Your task to perform on an android device: Empty the shopping cart on costco.com. Image 0: 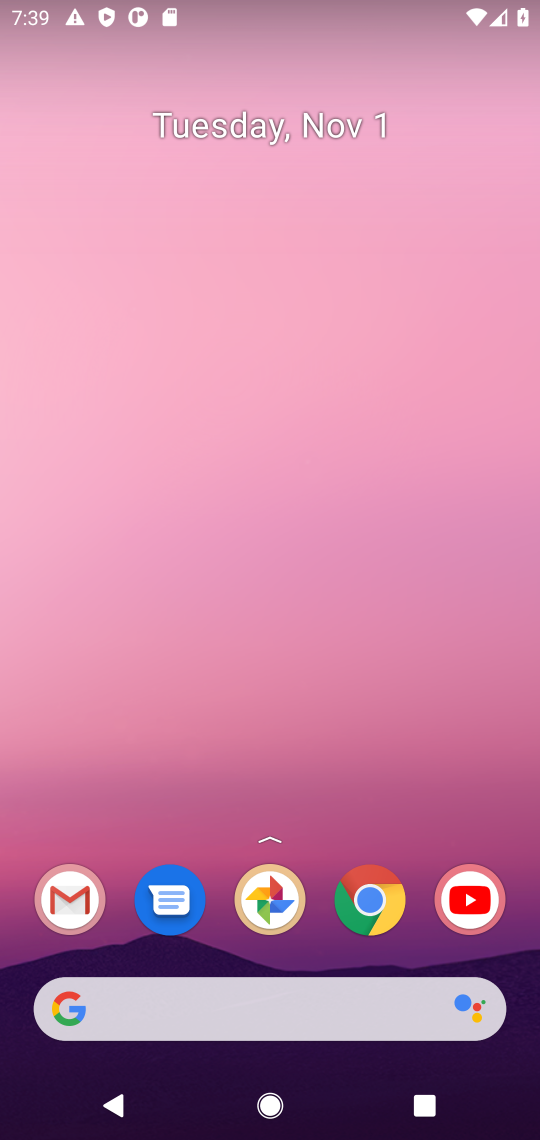
Step 0: drag from (312, 957) to (323, 85)
Your task to perform on an android device: Empty the shopping cart on costco.com. Image 1: 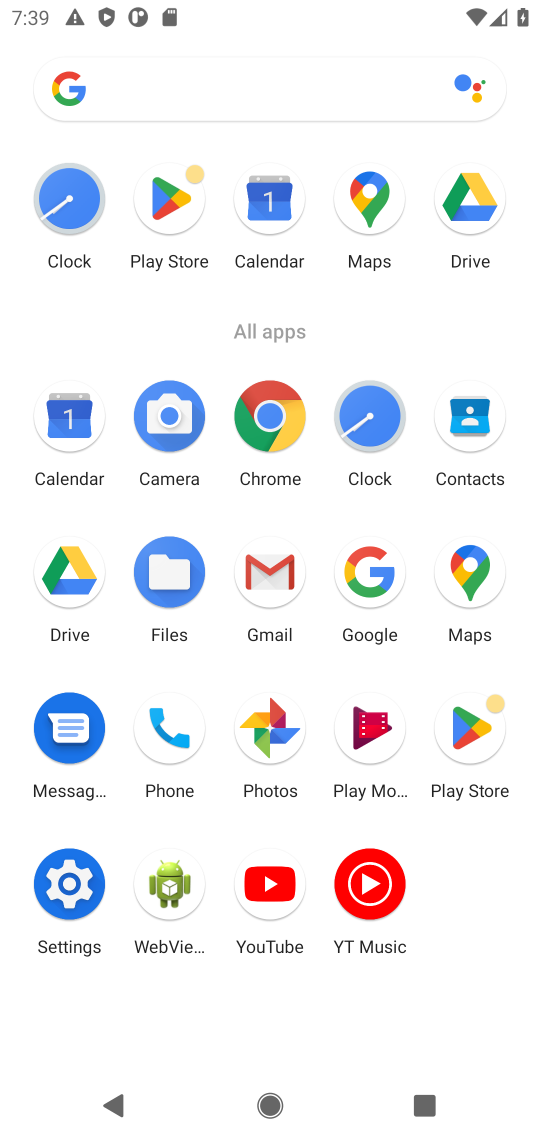
Step 1: click (277, 422)
Your task to perform on an android device: Empty the shopping cart on costco.com. Image 2: 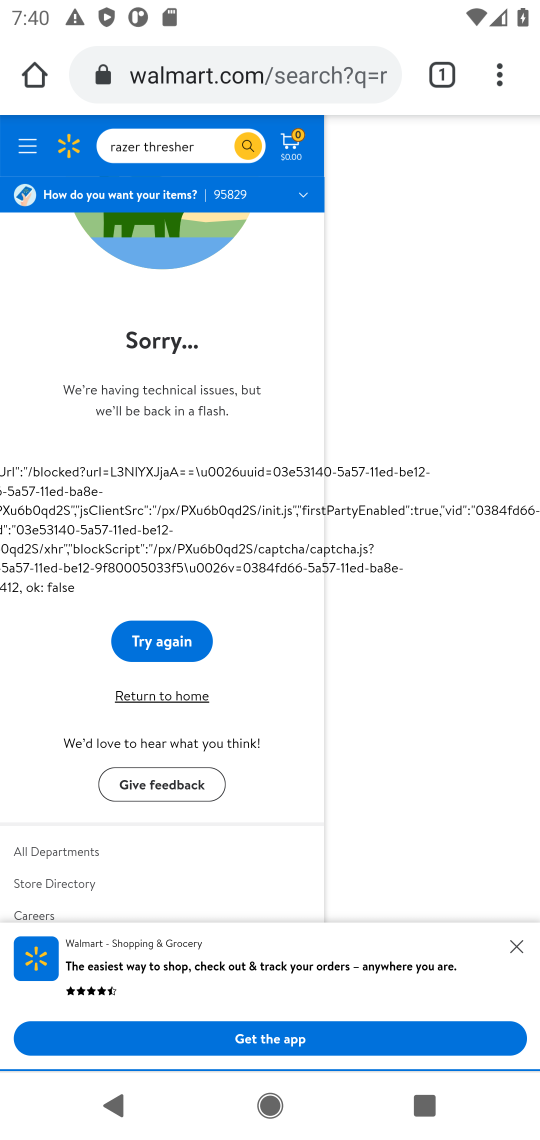
Step 2: click (258, 81)
Your task to perform on an android device: Empty the shopping cart on costco.com. Image 3: 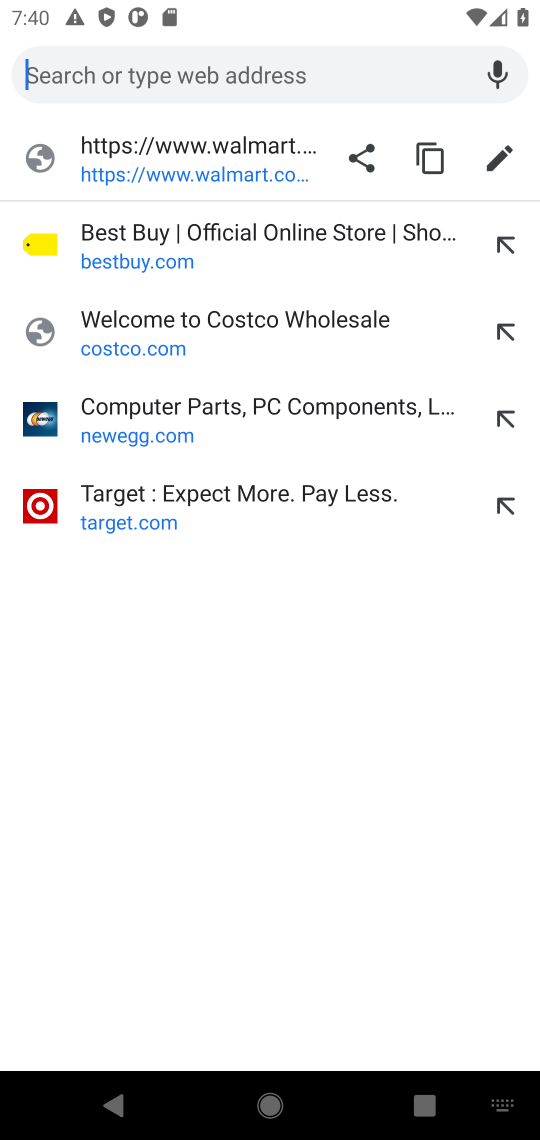
Step 3: type "costco.com"
Your task to perform on an android device: Empty the shopping cart on costco.com. Image 4: 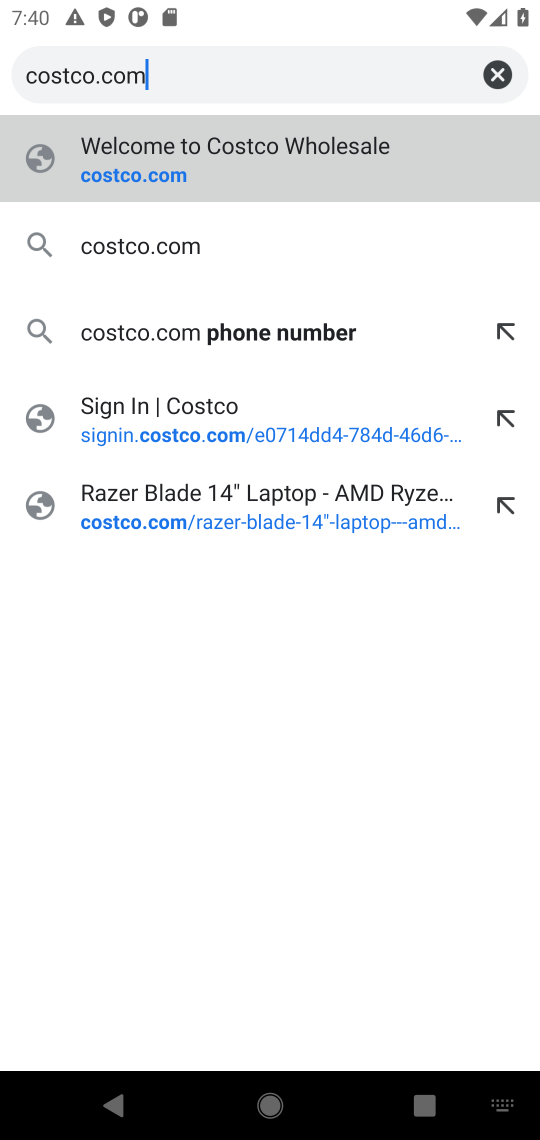
Step 4: press enter
Your task to perform on an android device: Empty the shopping cart on costco.com. Image 5: 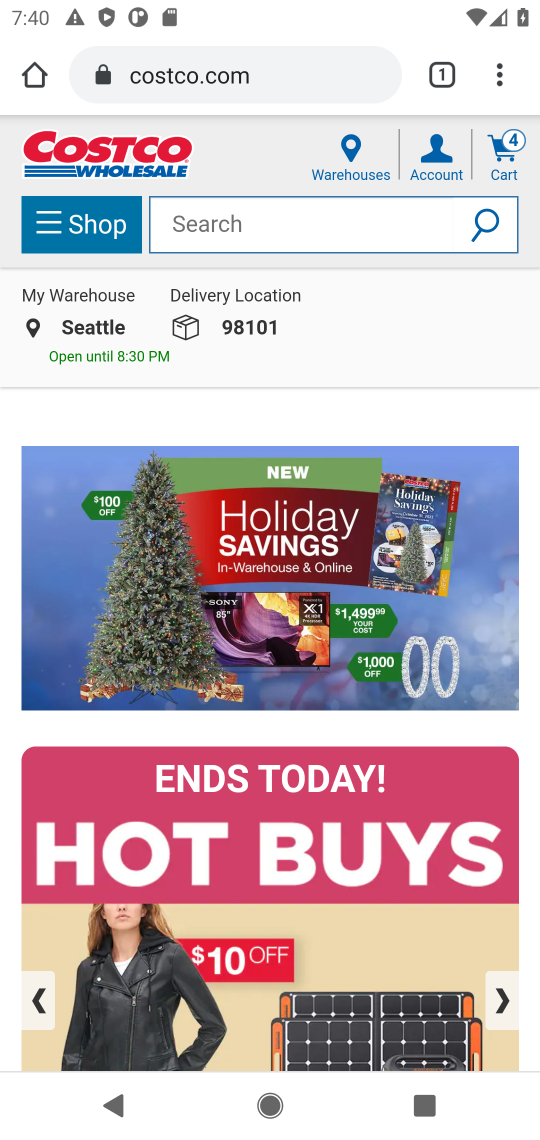
Step 5: click (355, 232)
Your task to perform on an android device: Empty the shopping cart on costco.com. Image 6: 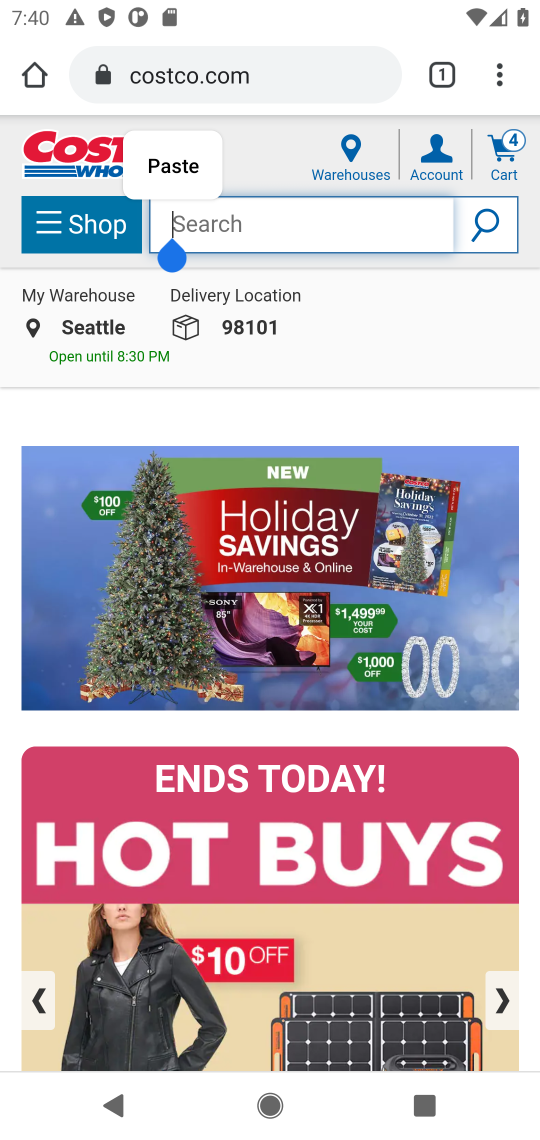
Step 6: click (508, 169)
Your task to perform on an android device: Empty the shopping cart on costco.com. Image 7: 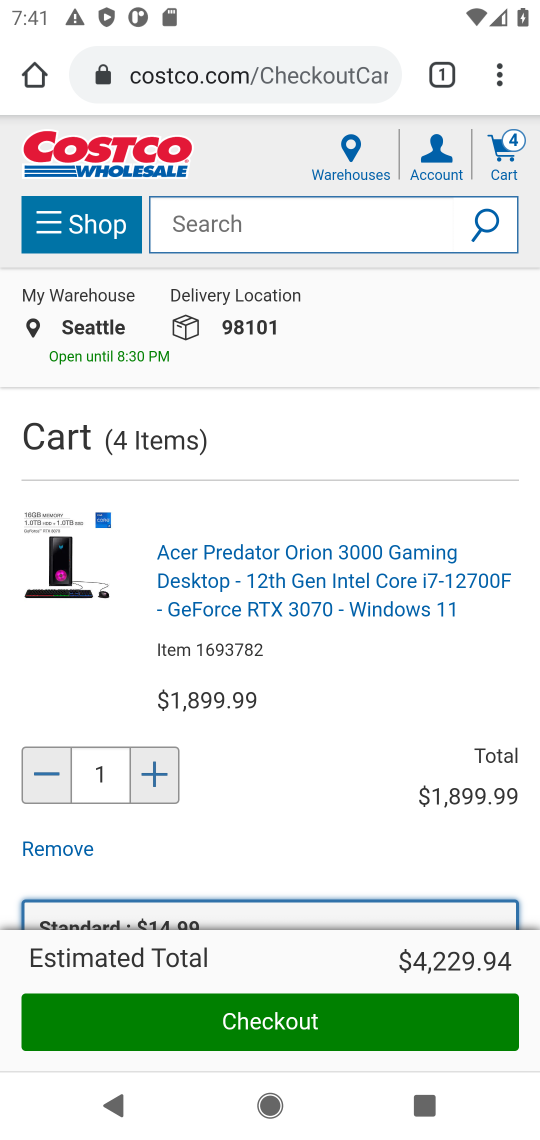
Step 7: click (49, 850)
Your task to perform on an android device: Empty the shopping cart on costco.com. Image 8: 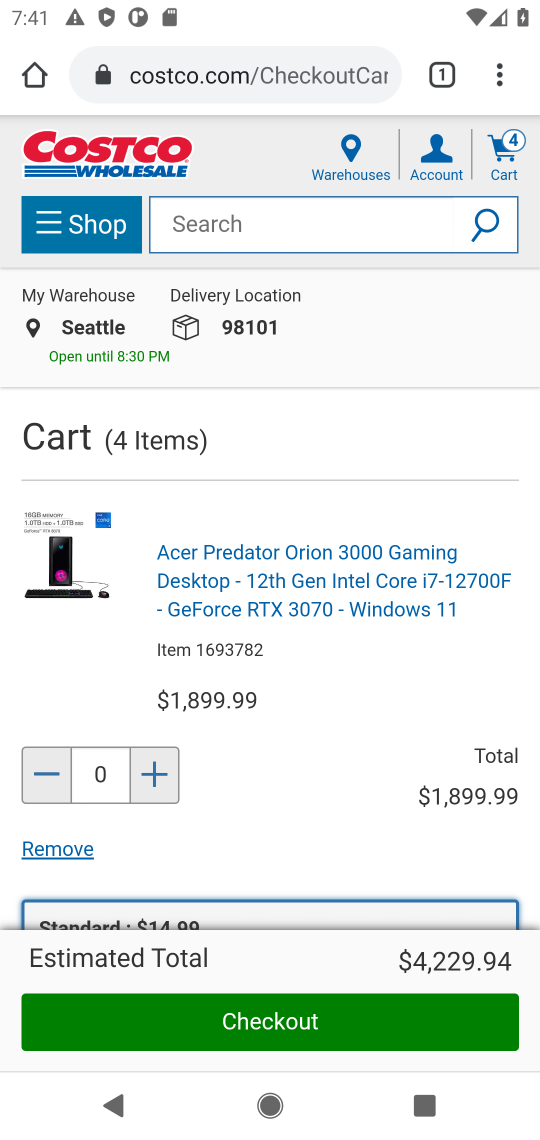
Step 8: click (49, 850)
Your task to perform on an android device: Empty the shopping cart on costco.com. Image 9: 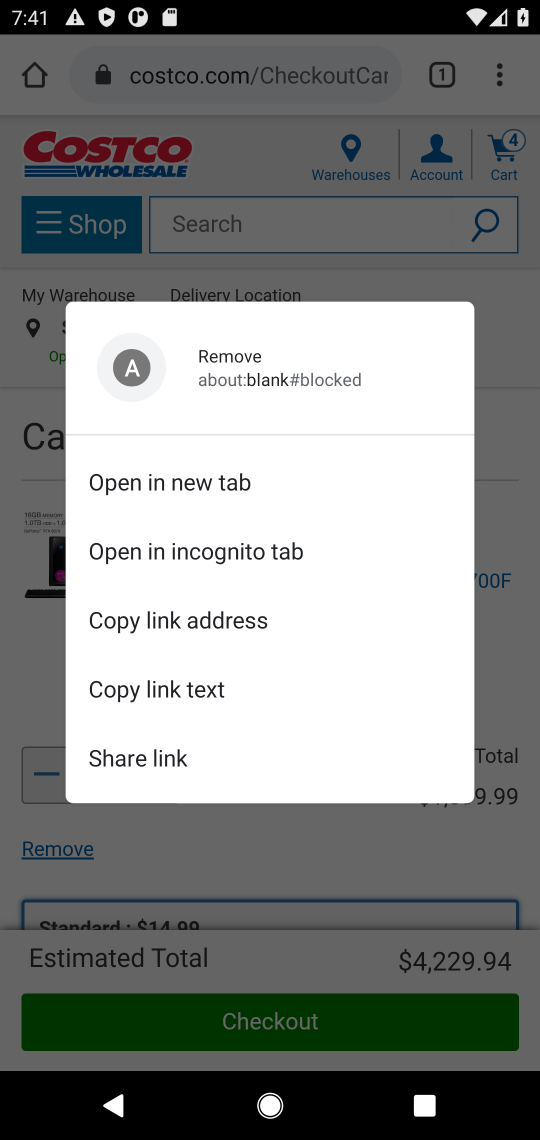
Step 9: click (49, 850)
Your task to perform on an android device: Empty the shopping cart on costco.com. Image 10: 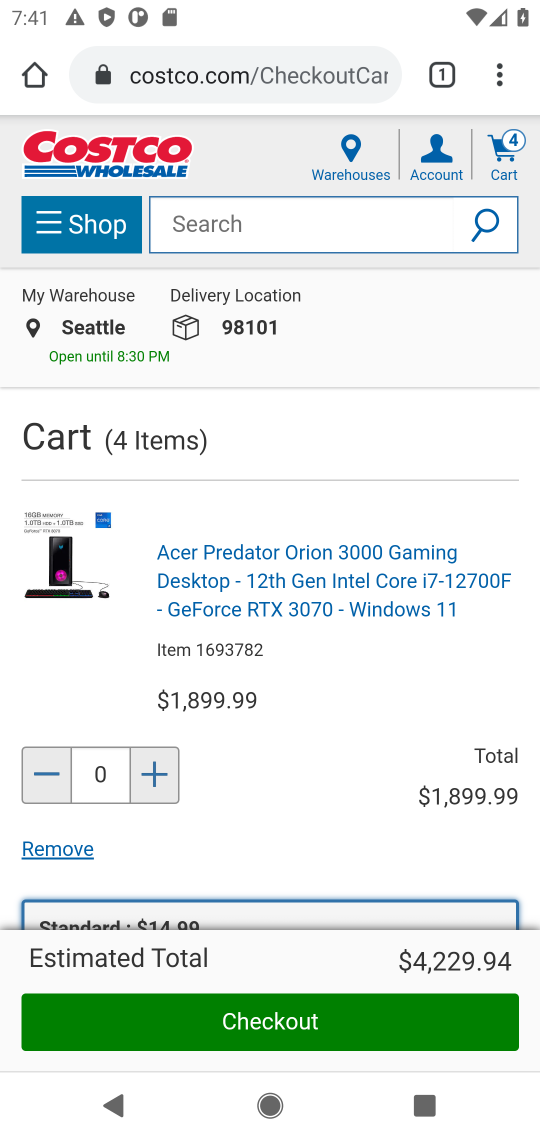
Step 10: click (49, 850)
Your task to perform on an android device: Empty the shopping cart on costco.com. Image 11: 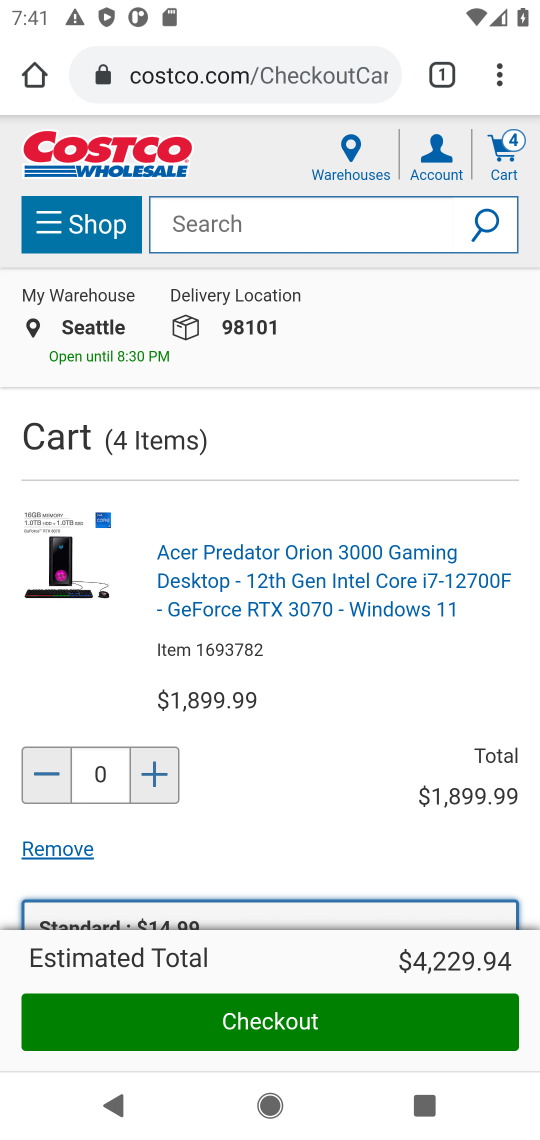
Step 11: click (82, 851)
Your task to perform on an android device: Empty the shopping cart on costco.com. Image 12: 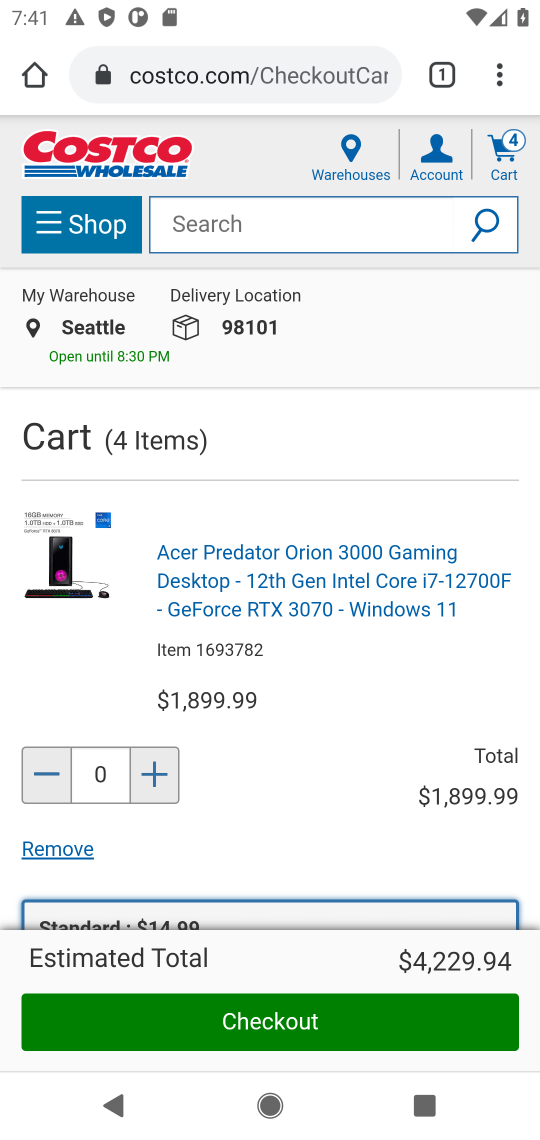
Step 12: click (82, 851)
Your task to perform on an android device: Empty the shopping cart on costco.com. Image 13: 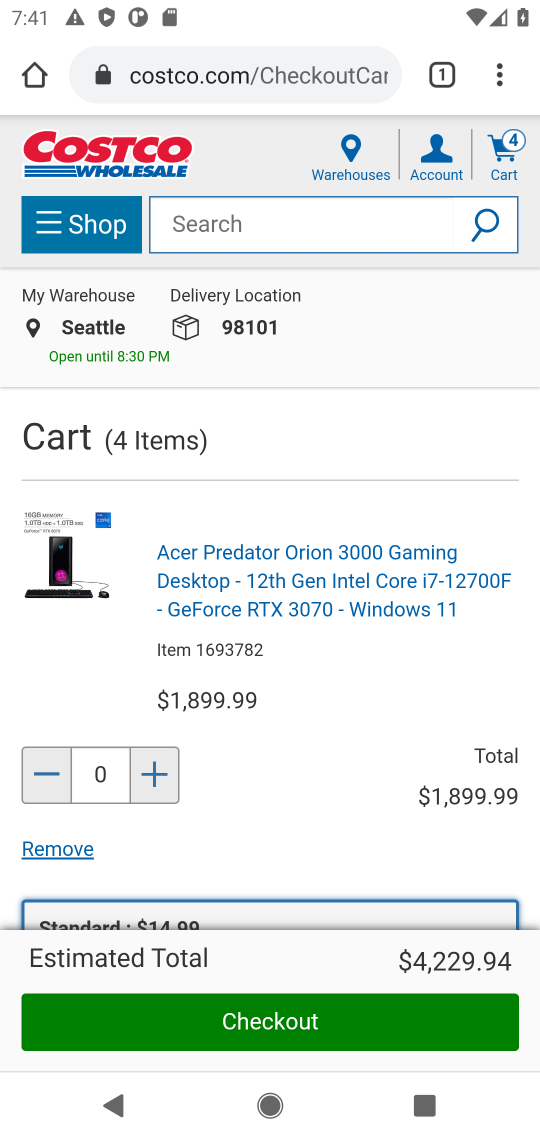
Step 13: click (82, 851)
Your task to perform on an android device: Empty the shopping cart on costco.com. Image 14: 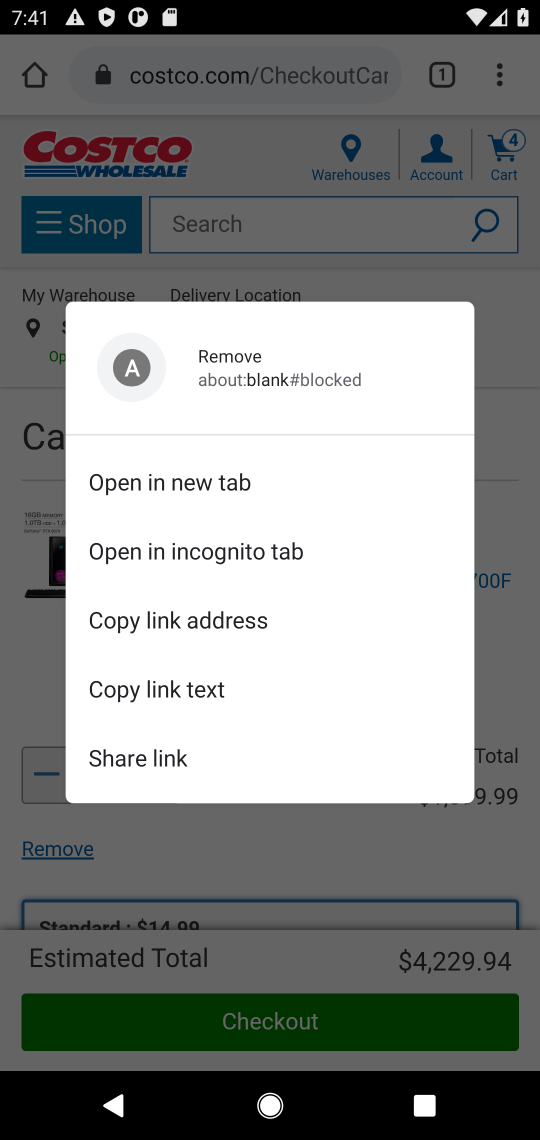
Step 14: click (58, 875)
Your task to perform on an android device: Empty the shopping cart on costco.com. Image 15: 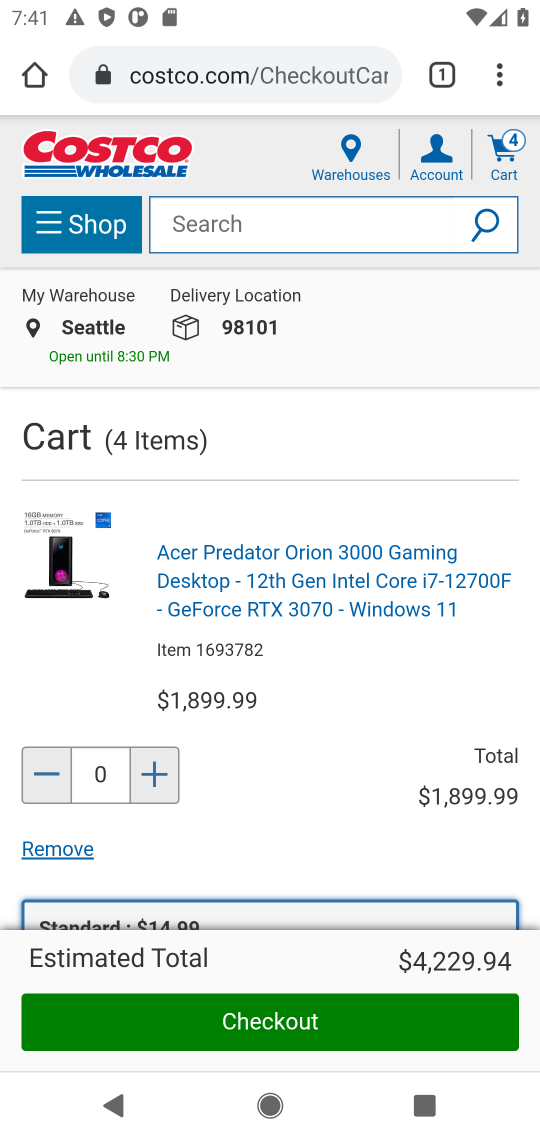
Step 15: click (64, 849)
Your task to perform on an android device: Empty the shopping cart on costco.com. Image 16: 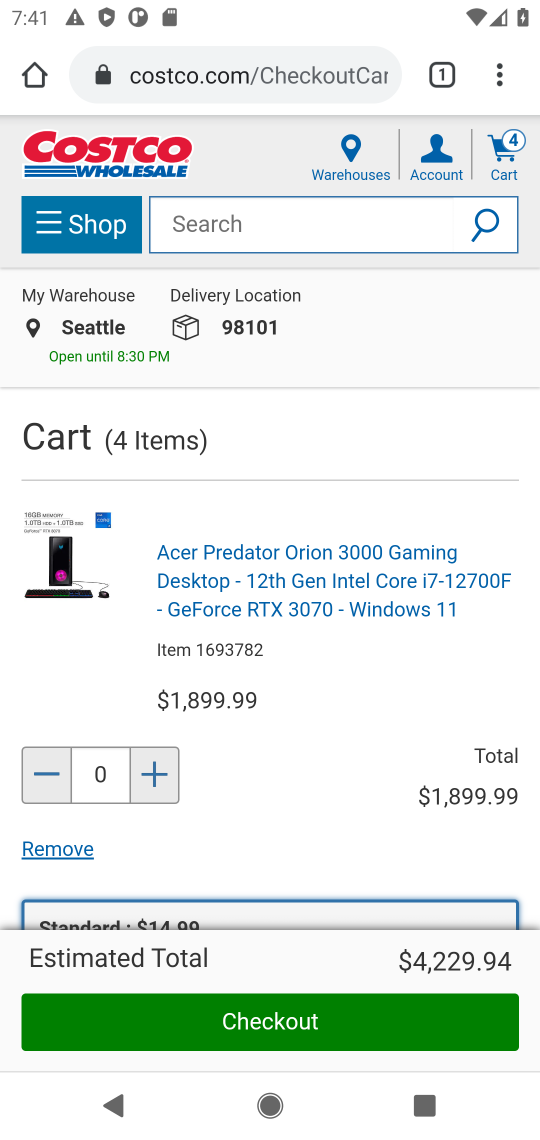
Step 16: click (30, 843)
Your task to perform on an android device: Empty the shopping cart on costco.com. Image 17: 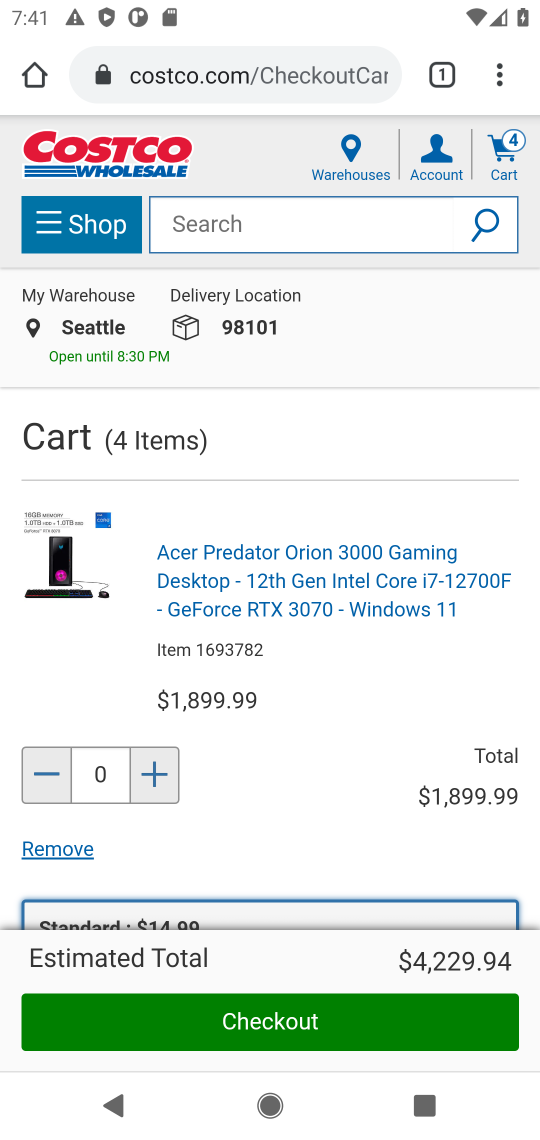
Step 17: task complete